Your task to perform on an android device: Open location settings Image 0: 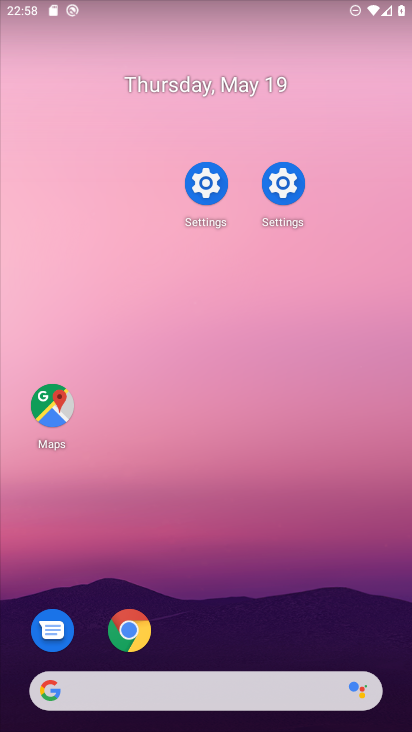
Step 0: drag from (265, 613) to (222, 207)
Your task to perform on an android device: Open location settings Image 1: 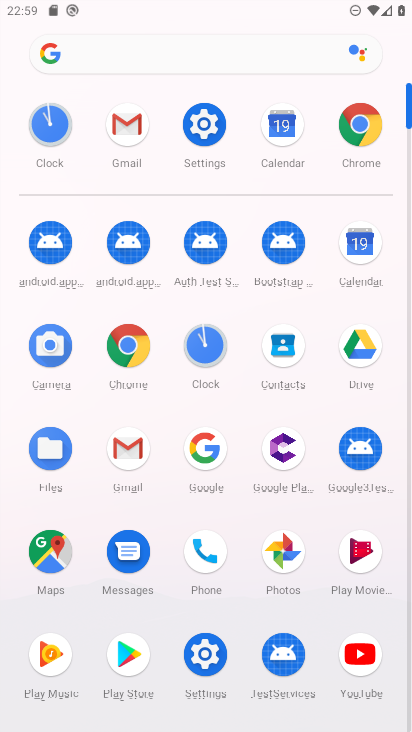
Step 1: click (207, 142)
Your task to perform on an android device: Open location settings Image 2: 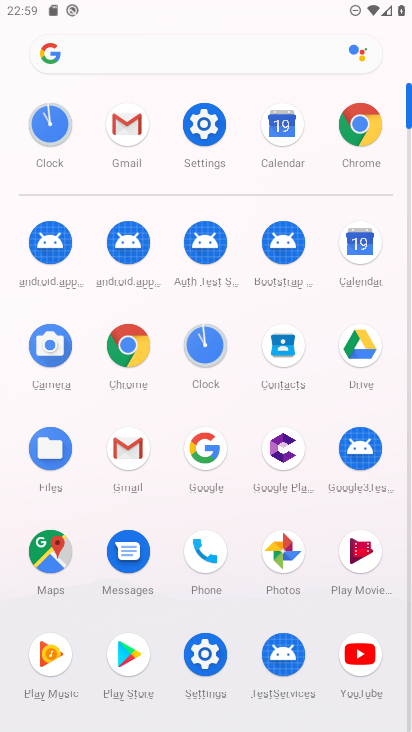
Step 2: click (208, 131)
Your task to perform on an android device: Open location settings Image 3: 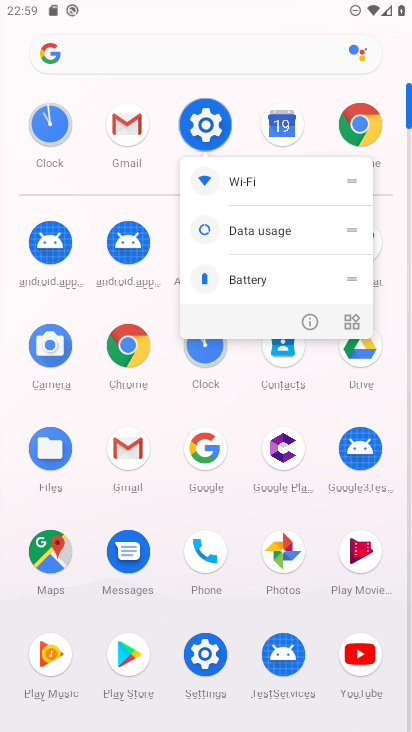
Step 3: click (208, 131)
Your task to perform on an android device: Open location settings Image 4: 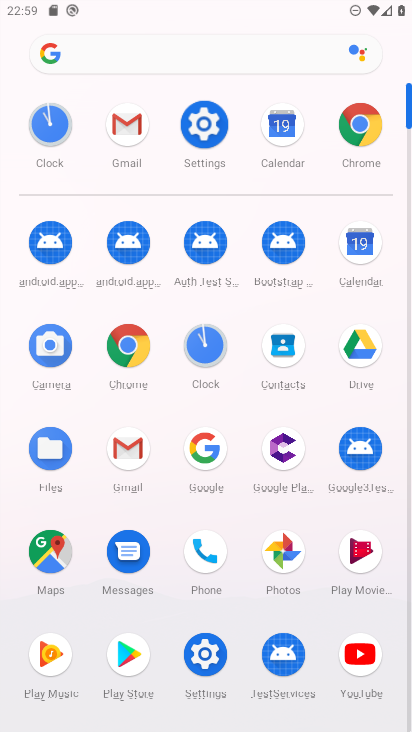
Step 4: click (208, 130)
Your task to perform on an android device: Open location settings Image 5: 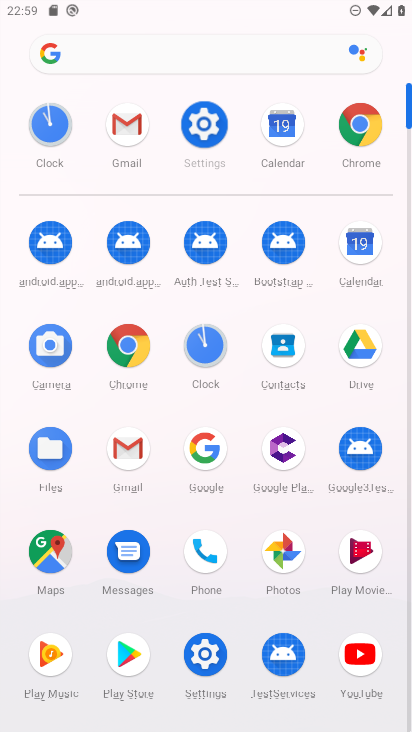
Step 5: click (208, 130)
Your task to perform on an android device: Open location settings Image 6: 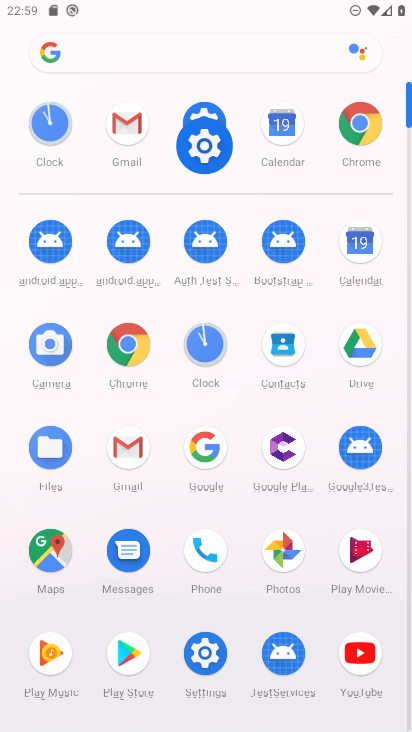
Step 6: click (208, 130)
Your task to perform on an android device: Open location settings Image 7: 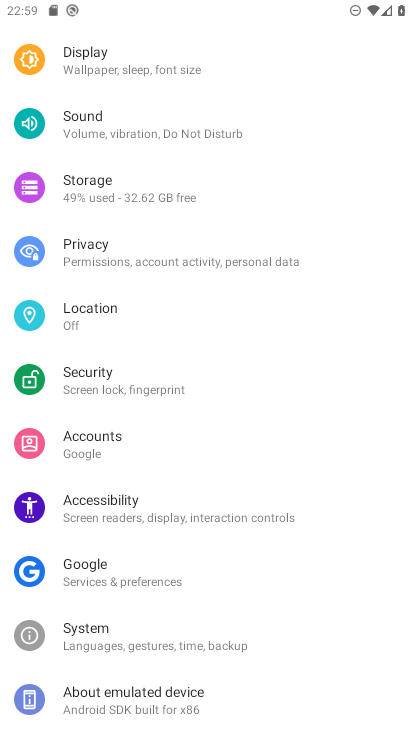
Step 7: click (78, 309)
Your task to perform on an android device: Open location settings Image 8: 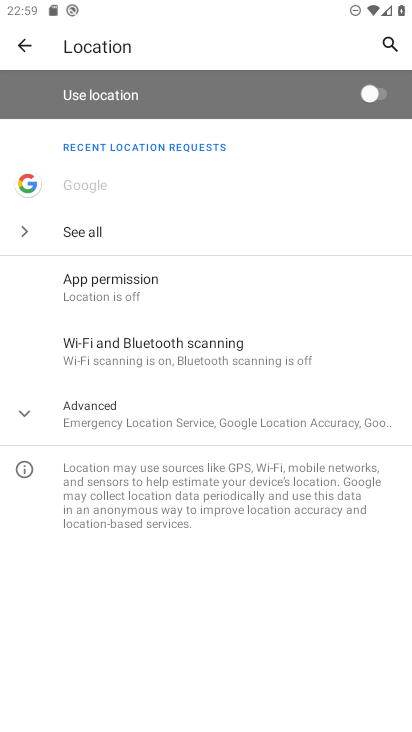
Step 8: task complete